Your task to perform on an android device: change the clock display to show seconds Image 0: 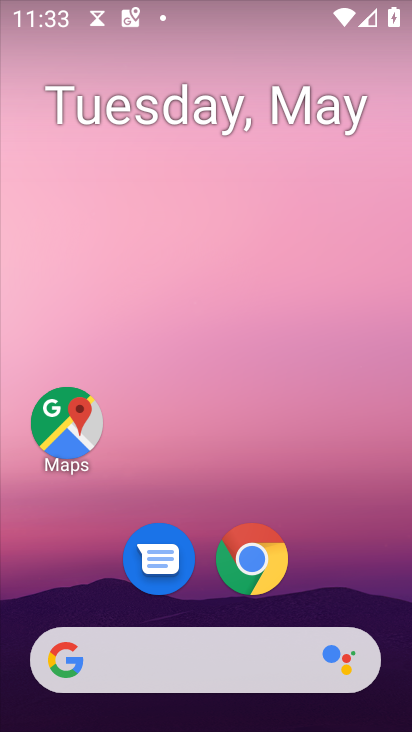
Step 0: drag from (365, 542) to (352, 158)
Your task to perform on an android device: change the clock display to show seconds Image 1: 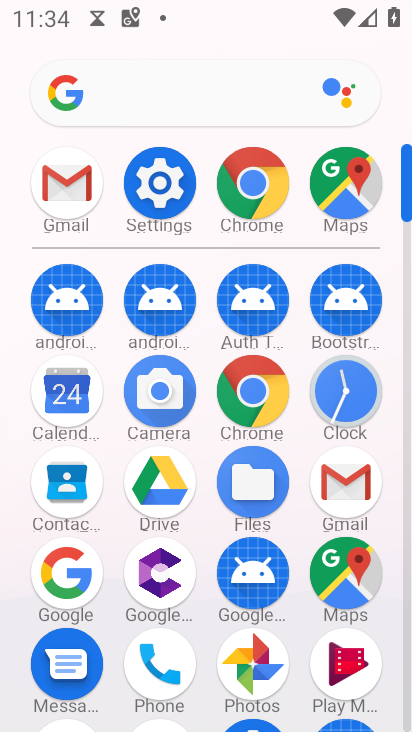
Step 1: click (338, 394)
Your task to perform on an android device: change the clock display to show seconds Image 2: 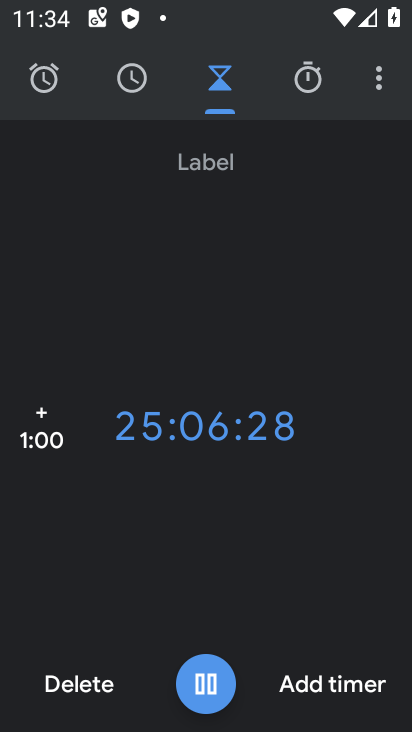
Step 2: click (383, 91)
Your task to perform on an android device: change the clock display to show seconds Image 3: 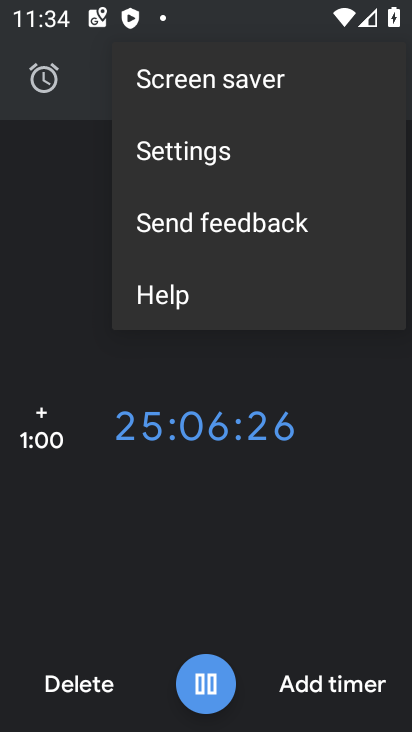
Step 3: click (175, 175)
Your task to perform on an android device: change the clock display to show seconds Image 4: 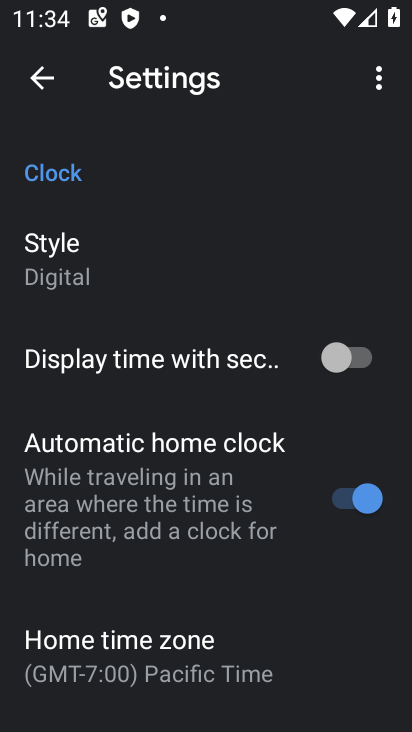
Step 4: click (346, 347)
Your task to perform on an android device: change the clock display to show seconds Image 5: 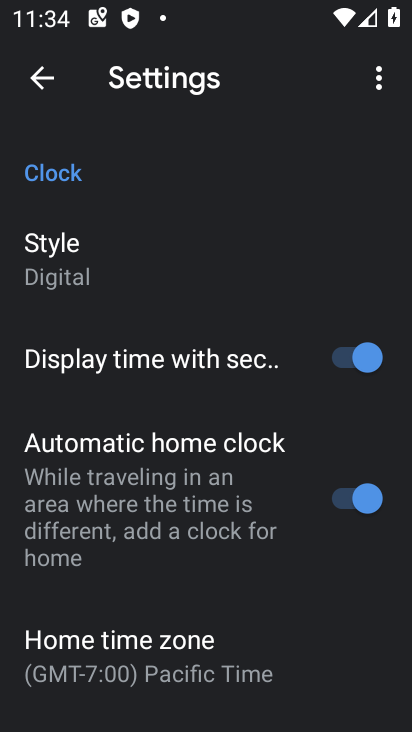
Step 5: task complete